Your task to perform on an android device: toggle location history Image 0: 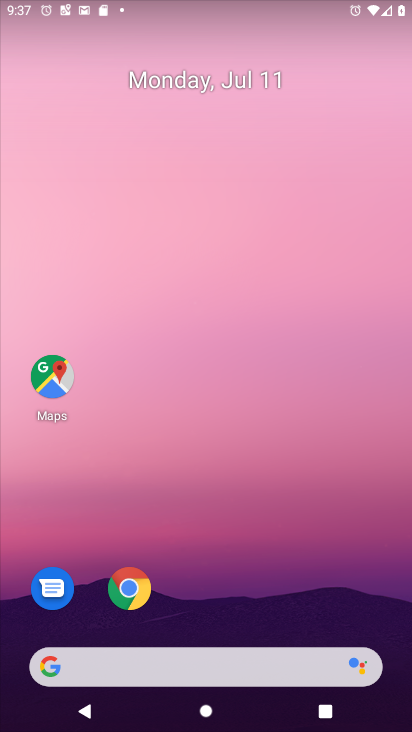
Step 0: drag from (199, 669) to (291, 102)
Your task to perform on an android device: toggle location history Image 1: 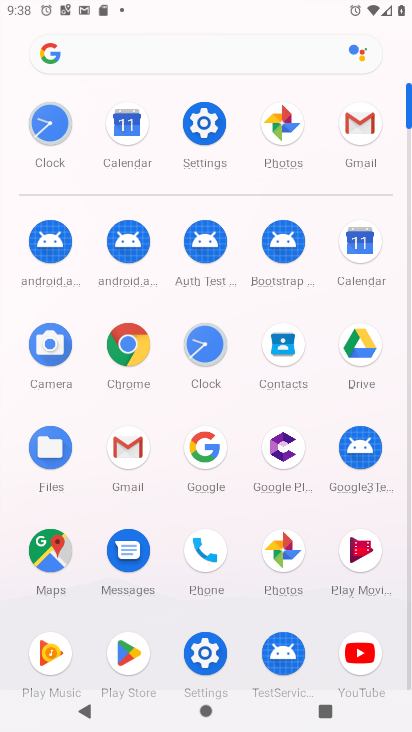
Step 1: click (224, 112)
Your task to perform on an android device: toggle location history Image 2: 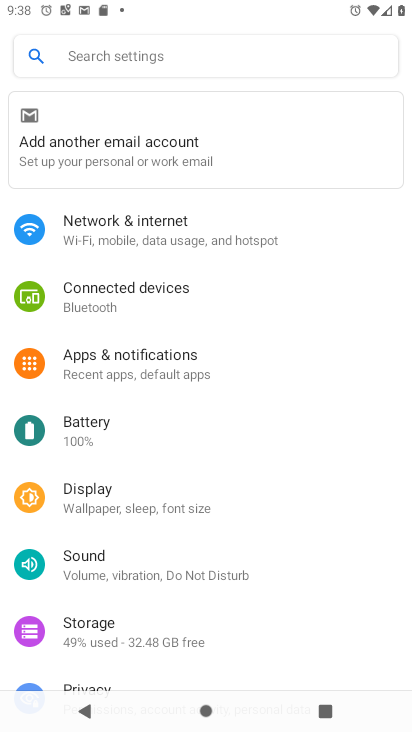
Step 2: drag from (177, 627) to (213, 103)
Your task to perform on an android device: toggle location history Image 3: 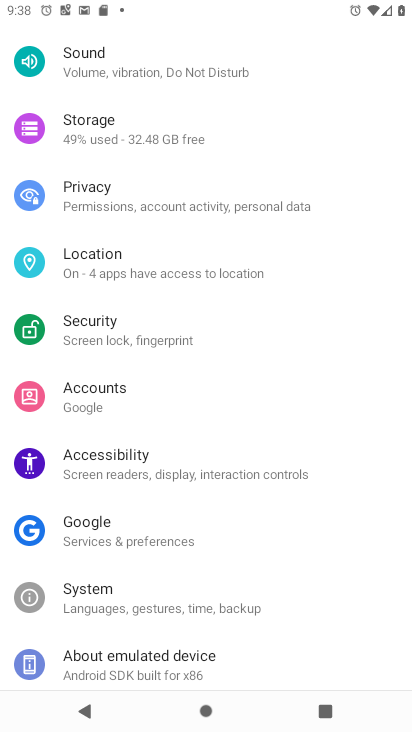
Step 3: click (121, 260)
Your task to perform on an android device: toggle location history Image 4: 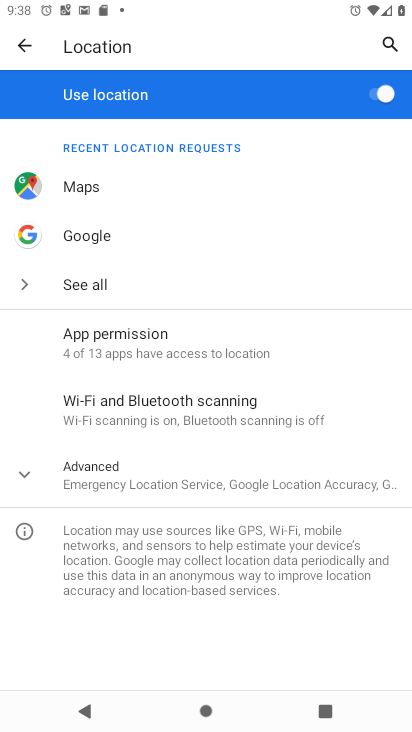
Step 4: click (105, 468)
Your task to perform on an android device: toggle location history Image 5: 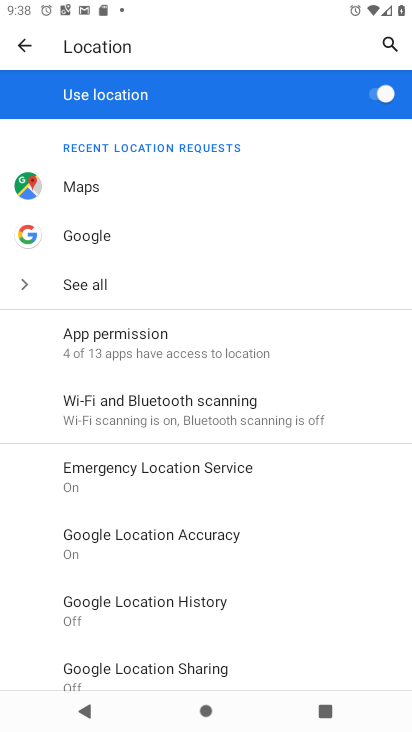
Step 5: click (197, 599)
Your task to perform on an android device: toggle location history Image 6: 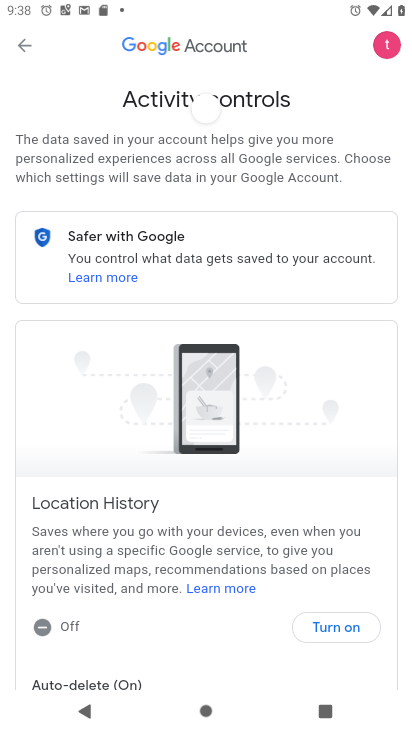
Step 6: drag from (176, 578) to (237, 235)
Your task to perform on an android device: toggle location history Image 7: 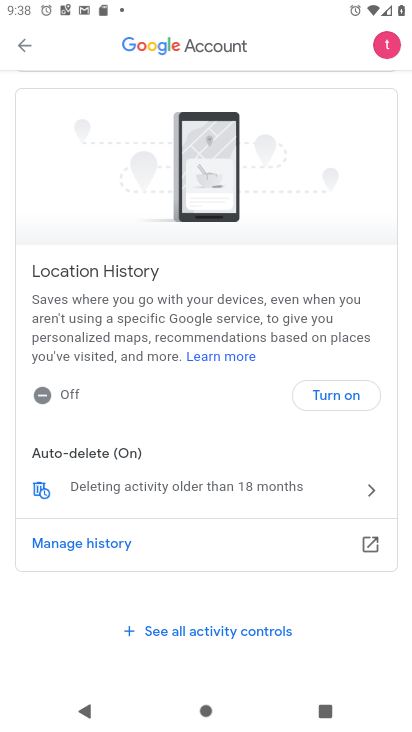
Step 7: click (334, 392)
Your task to perform on an android device: toggle location history Image 8: 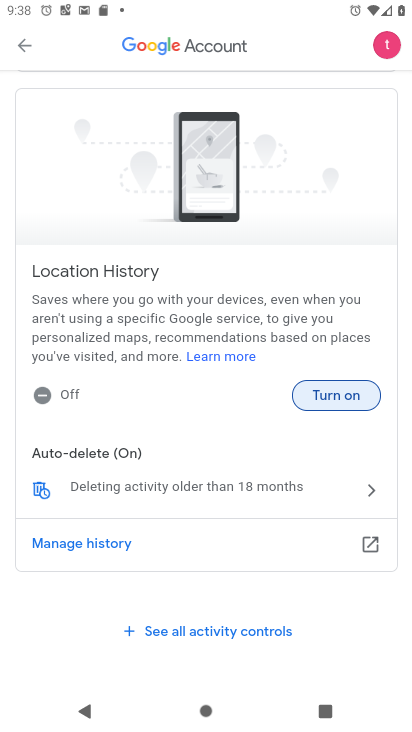
Step 8: click (333, 398)
Your task to perform on an android device: toggle location history Image 9: 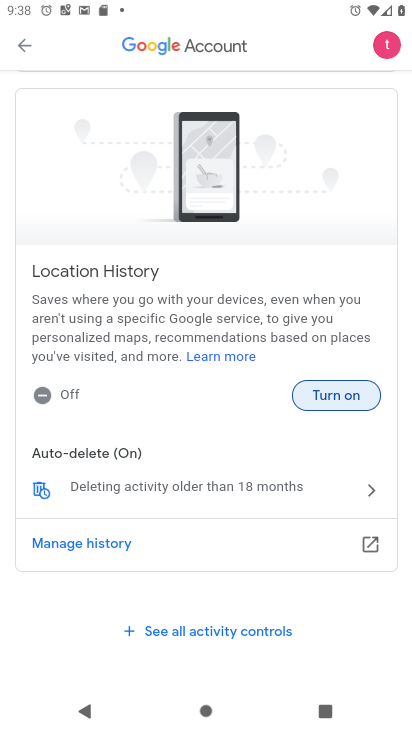
Step 9: click (330, 393)
Your task to perform on an android device: toggle location history Image 10: 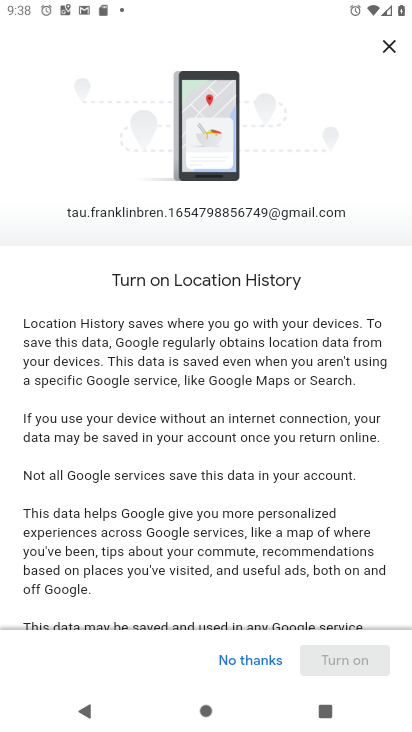
Step 10: drag from (248, 563) to (271, 88)
Your task to perform on an android device: toggle location history Image 11: 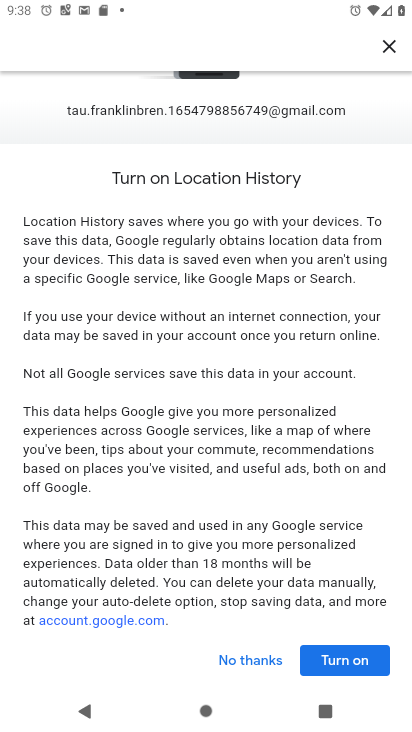
Step 11: click (338, 657)
Your task to perform on an android device: toggle location history Image 12: 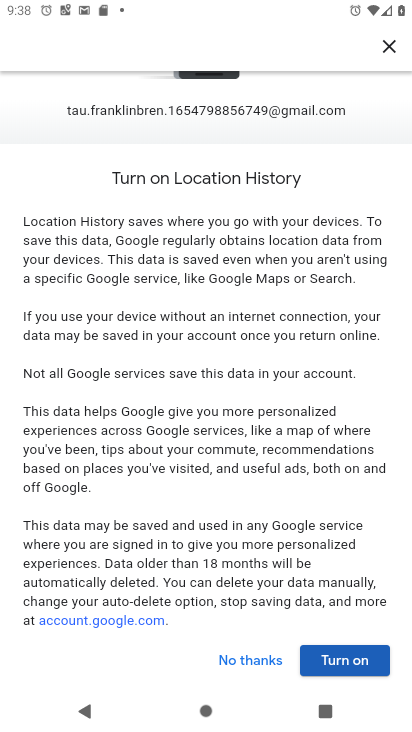
Step 12: click (342, 661)
Your task to perform on an android device: toggle location history Image 13: 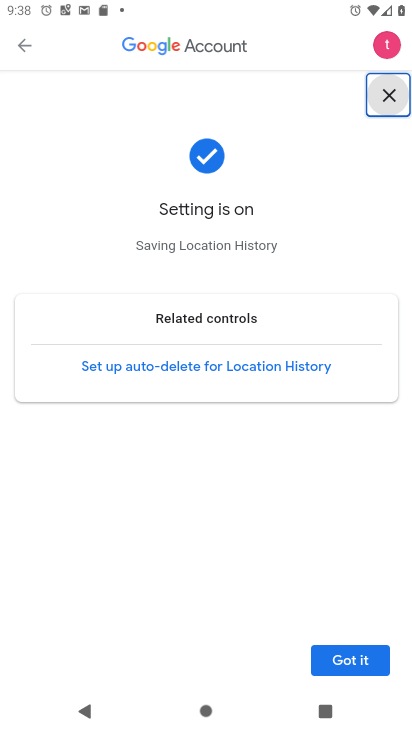
Step 13: click (344, 656)
Your task to perform on an android device: toggle location history Image 14: 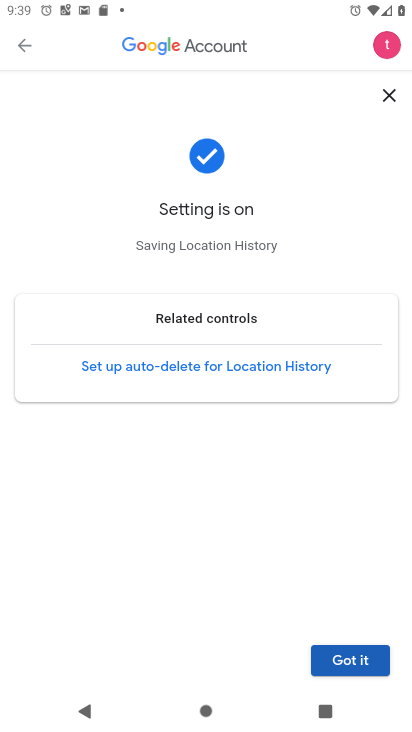
Step 14: click (342, 661)
Your task to perform on an android device: toggle location history Image 15: 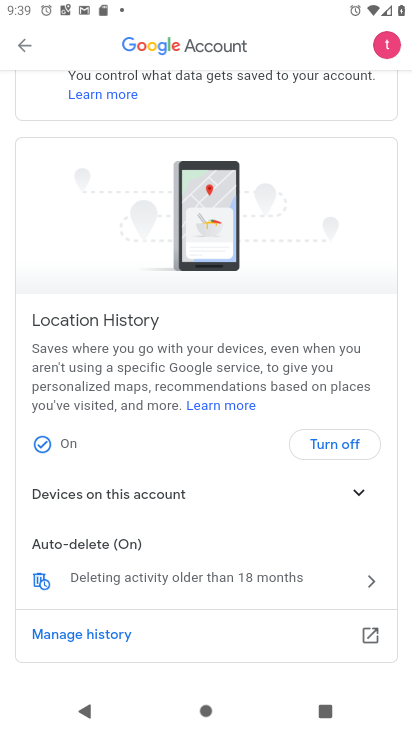
Step 15: task complete